Your task to perform on an android device: Go to wifi settings Image 0: 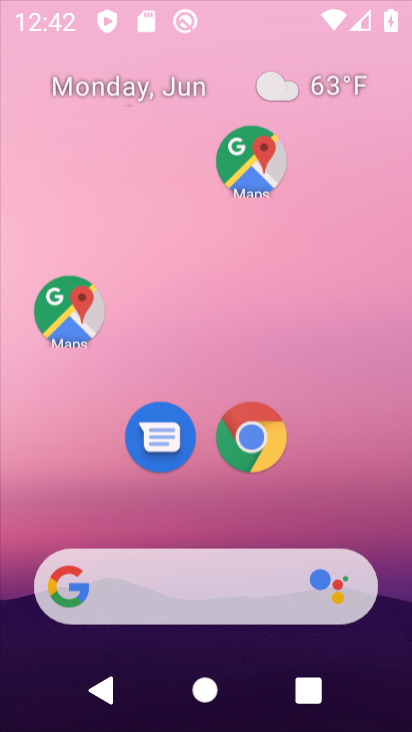
Step 0: click (240, 238)
Your task to perform on an android device: Go to wifi settings Image 1: 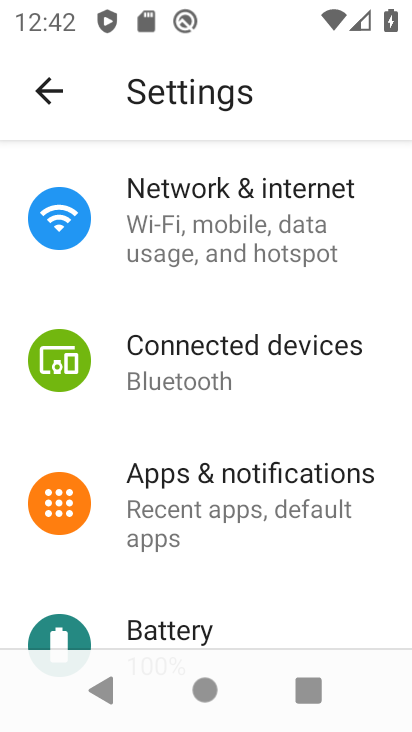
Step 1: click (189, 207)
Your task to perform on an android device: Go to wifi settings Image 2: 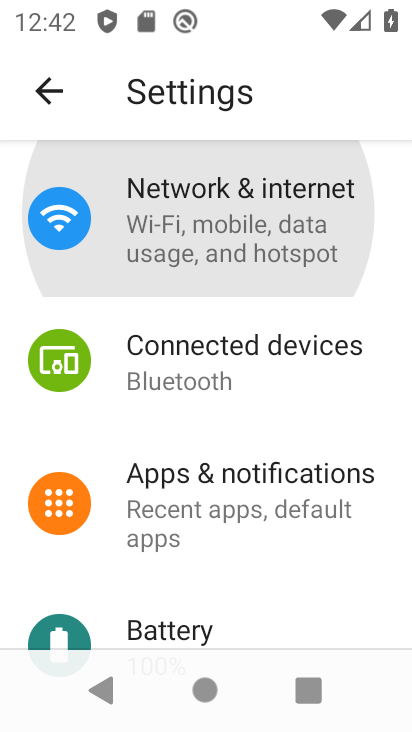
Step 2: click (194, 216)
Your task to perform on an android device: Go to wifi settings Image 3: 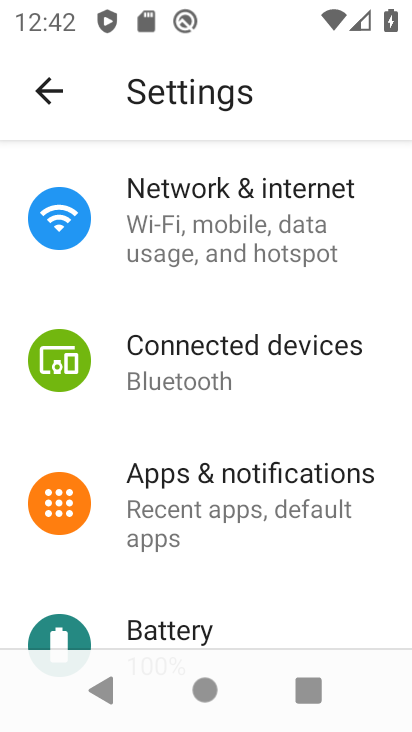
Step 3: click (194, 235)
Your task to perform on an android device: Go to wifi settings Image 4: 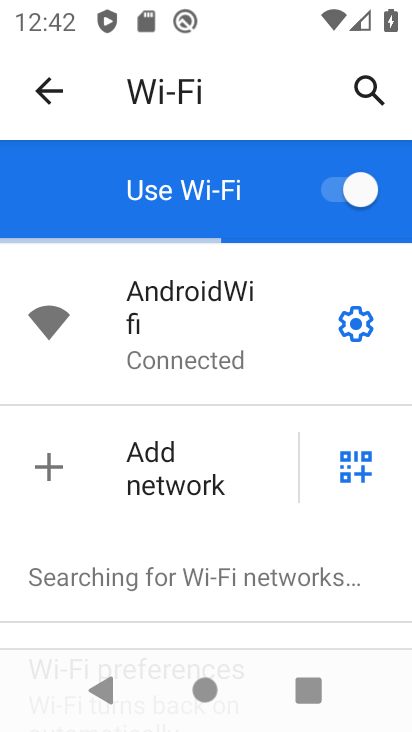
Step 4: task complete